Your task to perform on an android device: Search for "usb-b" on ebay, select the first entry, and add it to the cart. Image 0: 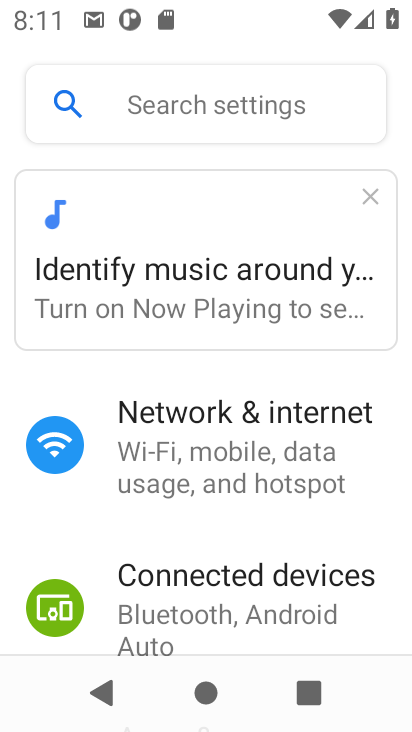
Step 0: click (370, 205)
Your task to perform on an android device: Search for "usb-b" on ebay, select the first entry, and add it to the cart. Image 1: 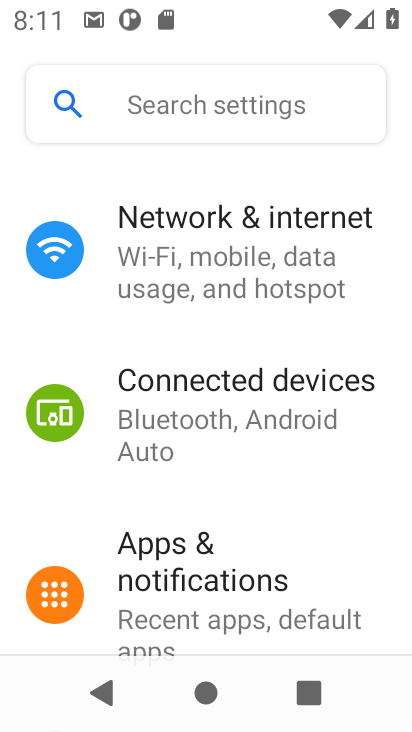
Step 1: press home button
Your task to perform on an android device: Search for "usb-b" on ebay, select the first entry, and add it to the cart. Image 2: 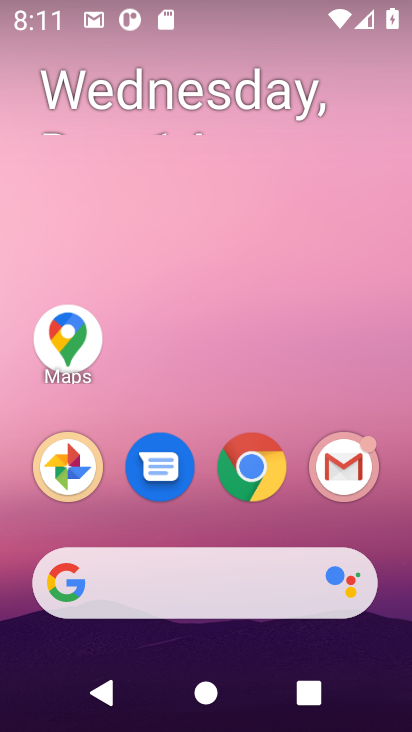
Step 2: click (221, 562)
Your task to perform on an android device: Search for "usb-b" on ebay, select the first entry, and add it to the cart. Image 3: 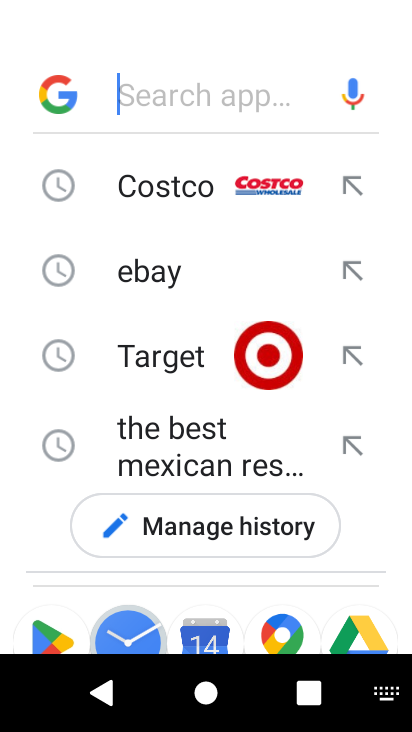
Step 3: click (172, 281)
Your task to perform on an android device: Search for "usb-b" on ebay, select the first entry, and add it to the cart. Image 4: 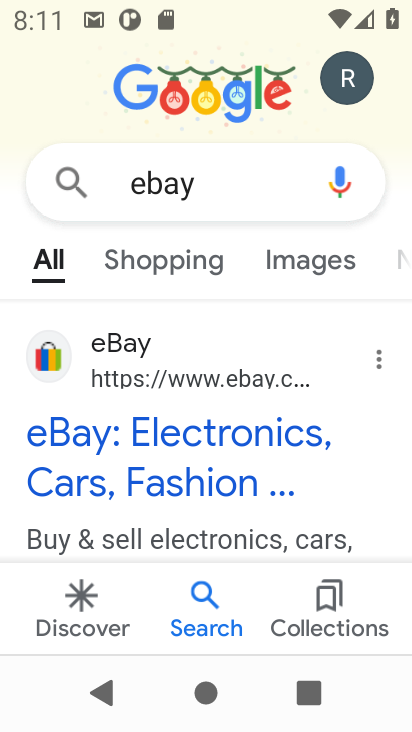
Step 4: click (80, 460)
Your task to perform on an android device: Search for "usb-b" on ebay, select the first entry, and add it to the cart. Image 5: 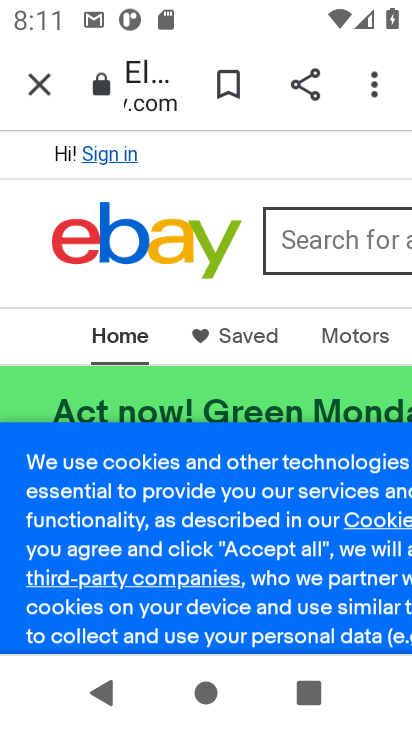
Step 5: click (346, 240)
Your task to perform on an android device: Search for "usb-b" on ebay, select the first entry, and add it to the cart. Image 6: 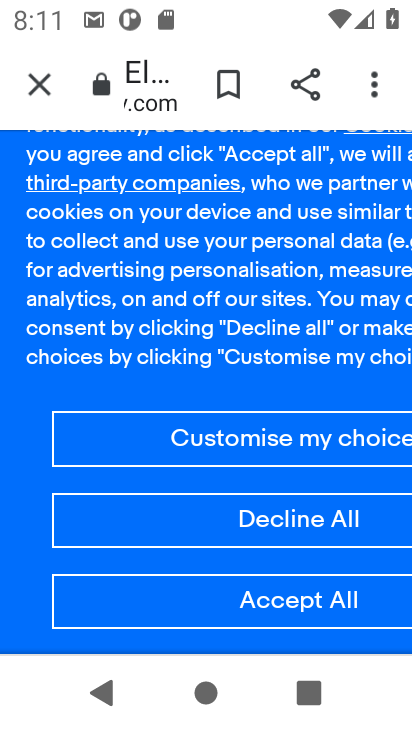
Step 6: click (266, 587)
Your task to perform on an android device: Search for "usb-b" on ebay, select the first entry, and add it to the cart. Image 7: 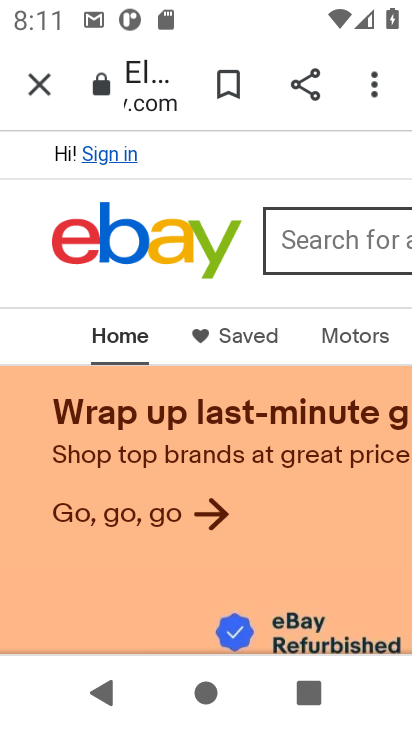
Step 7: click (306, 254)
Your task to perform on an android device: Search for "usb-b" on ebay, select the first entry, and add it to the cart. Image 8: 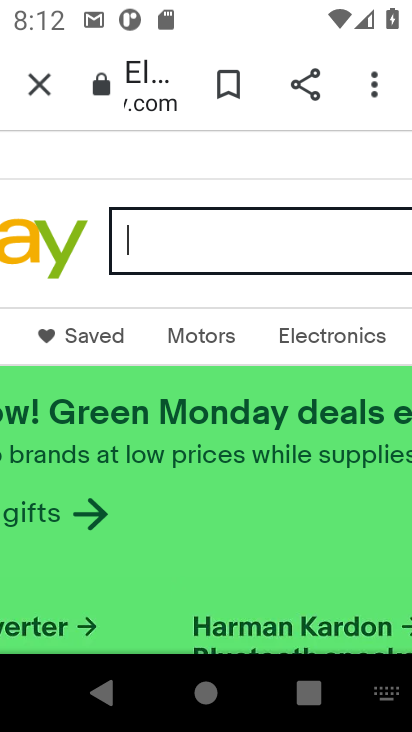
Step 8: type "usb-b"
Your task to perform on an android device: Search for "usb-b" on ebay, select the first entry, and add it to the cart. Image 9: 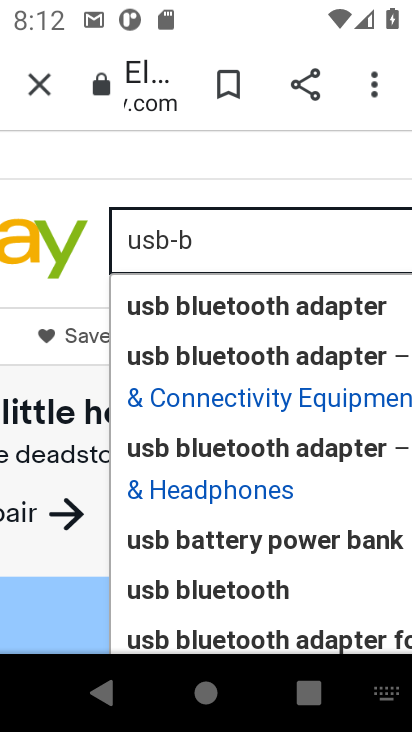
Step 9: click (172, 289)
Your task to perform on an android device: Search for "usb-b" on ebay, select the first entry, and add it to the cart. Image 10: 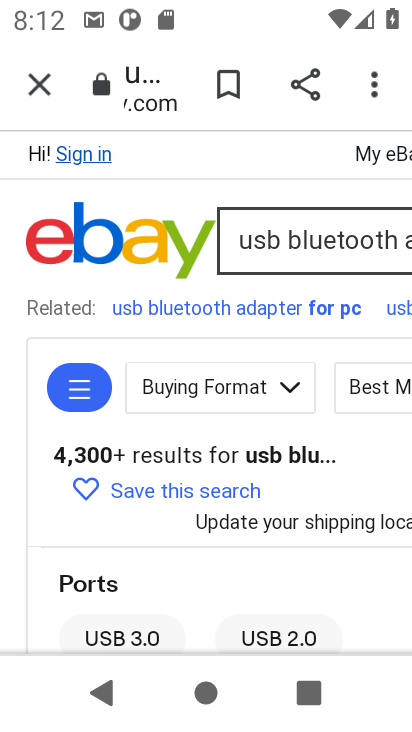
Step 10: task complete